Your task to perform on an android device: allow cookies in the chrome app Image 0: 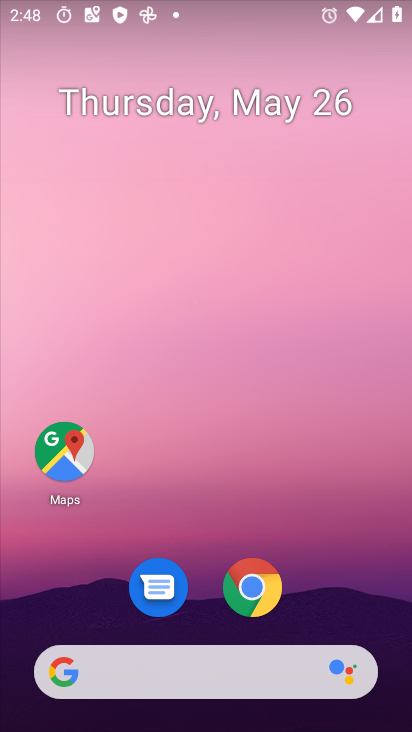
Step 0: drag from (384, 619) to (375, 158)
Your task to perform on an android device: allow cookies in the chrome app Image 1: 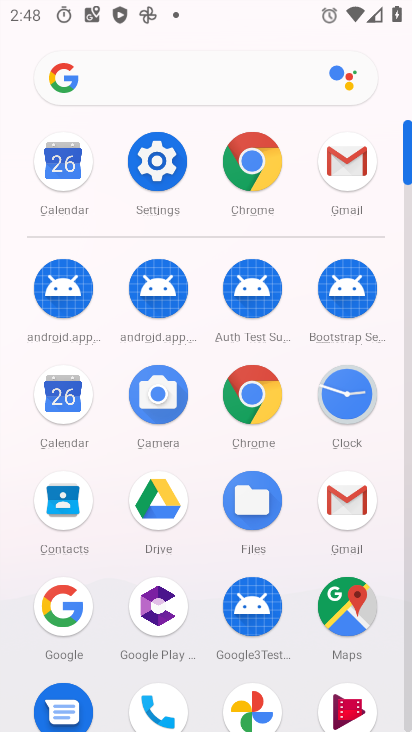
Step 1: click (255, 415)
Your task to perform on an android device: allow cookies in the chrome app Image 2: 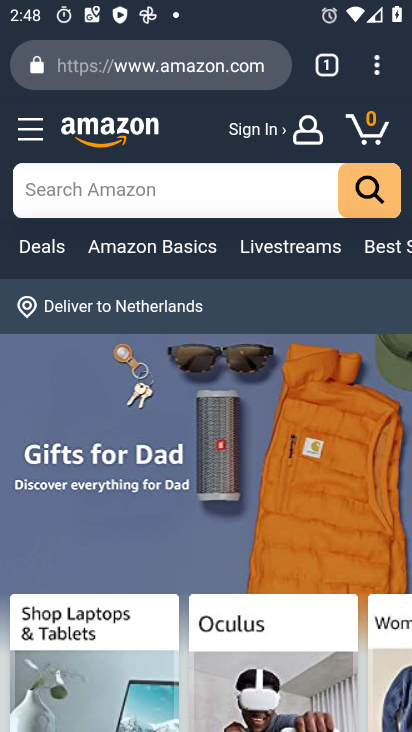
Step 2: click (379, 78)
Your task to perform on an android device: allow cookies in the chrome app Image 3: 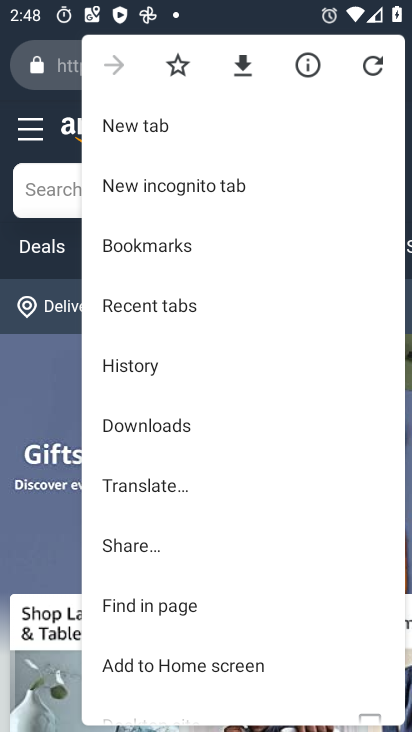
Step 3: drag from (333, 444) to (329, 333)
Your task to perform on an android device: allow cookies in the chrome app Image 4: 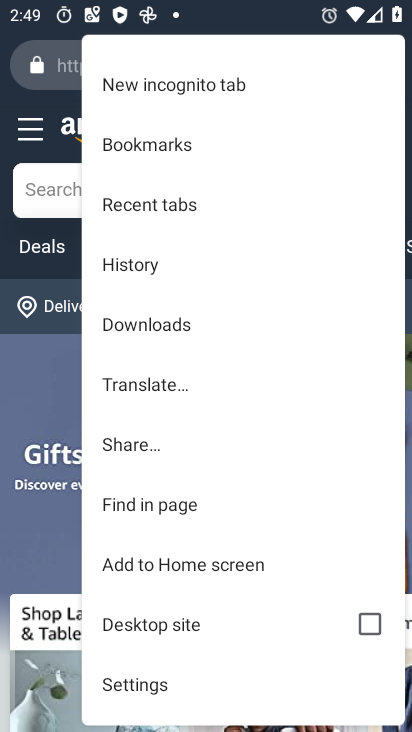
Step 4: drag from (301, 535) to (294, 410)
Your task to perform on an android device: allow cookies in the chrome app Image 5: 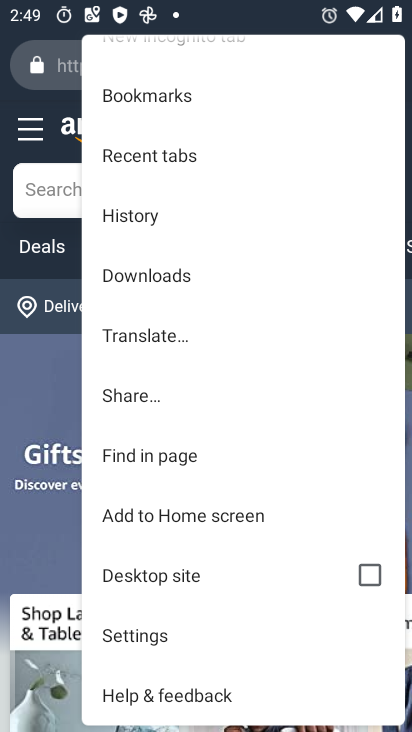
Step 5: click (164, 640)
Your task to perform on an android device: allow cookies in the chrome app Image 6: 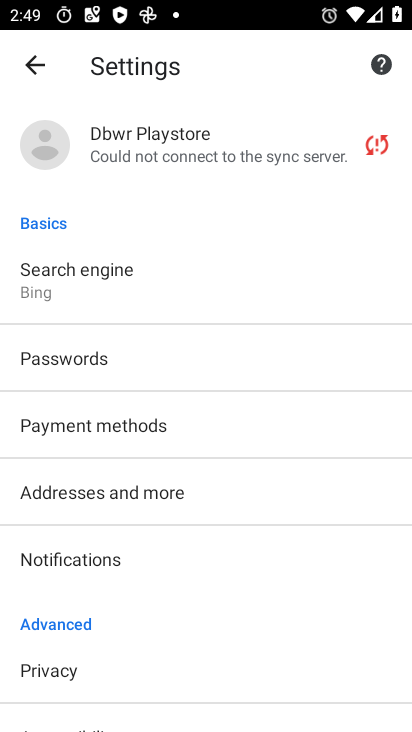
Step 6: drag from (307, 590) to (329, 487)
Your task to perform on an android device: allow cookies in the chrome app Image 7: 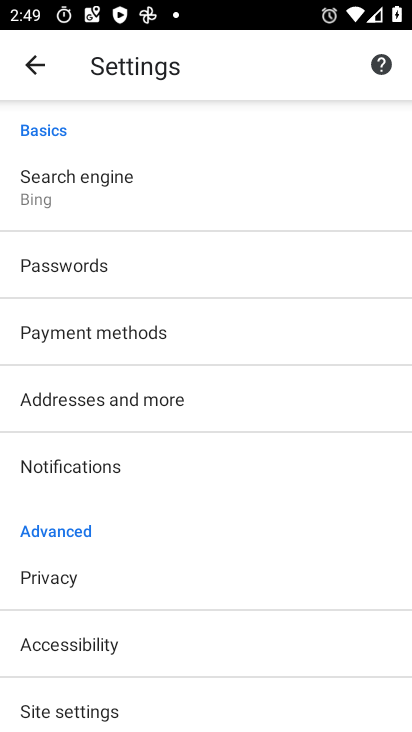
Step 7: drag from (349, 626) to (338, 468)
Your task to perform on an android device: allow cookies in the chrome app Image 8: 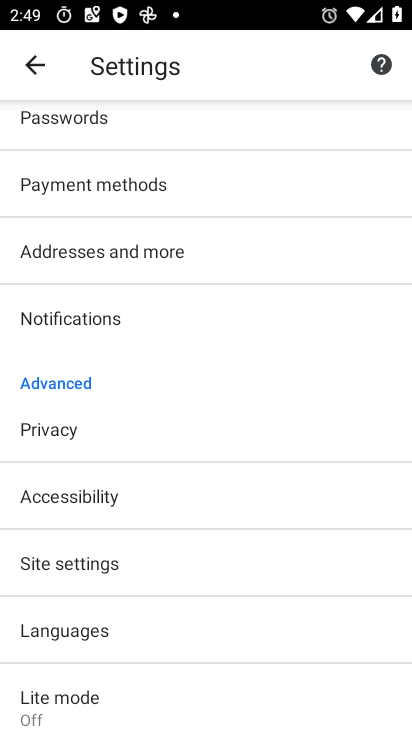
Step 8: drag from (313, 605) to (317, 539)
Your task to perform on an android device: allow cookies in the chrome app Image 9: 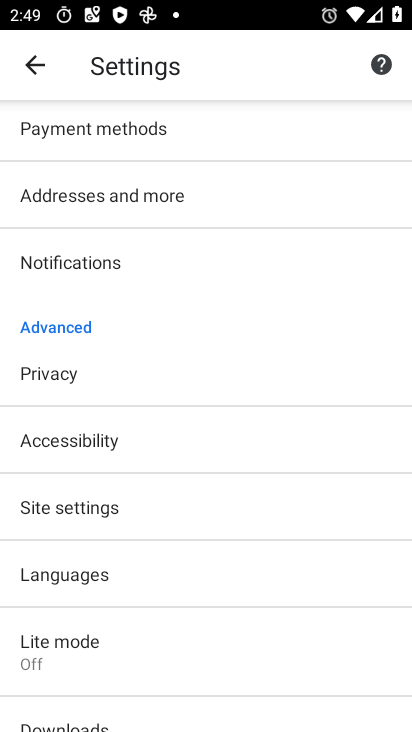
Step 9: drag from (322, 641) to (334, 503)
Your task to perform on an android device: allow cookies in the chrome app Image 10: 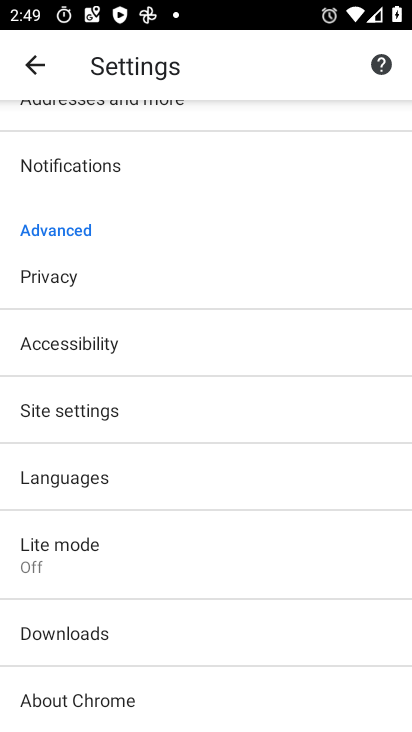
Step 10: drag from (343, 617) to (344, 508)
Your task to perform on an android device: allow cookies in the chrome app Image 11: 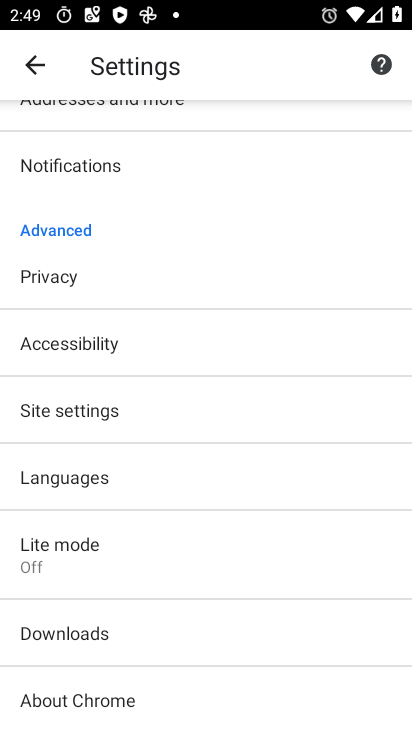
Step 11: drag from (324, 376) to (322, 474)
Your task to perform on an android device: allow cookies in the chrome app Image 12: 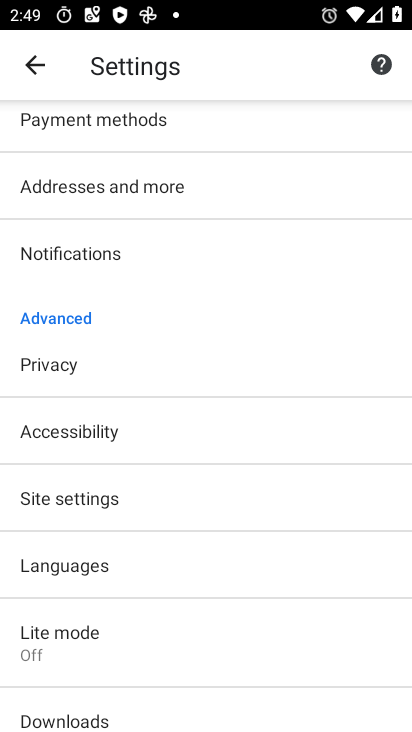
Step 12: click (295, 503)
Your task to perform on an android device: allow cookies in the chrome app Image 13: 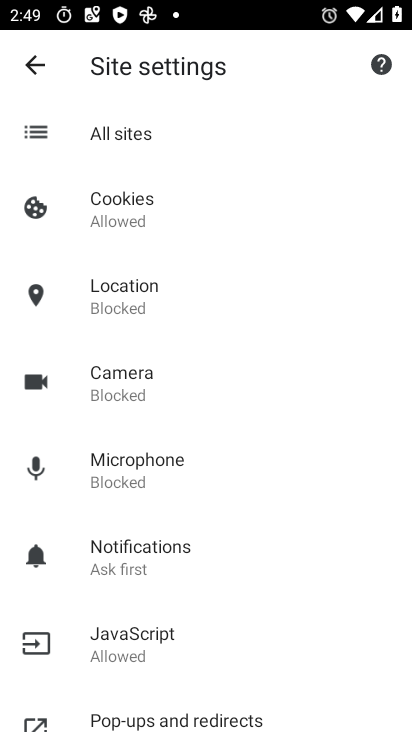
Step 13: drag from (303, 566) to (327, 477)
Your task to perform on an android device: allow cookies in the chrome app Image 14: 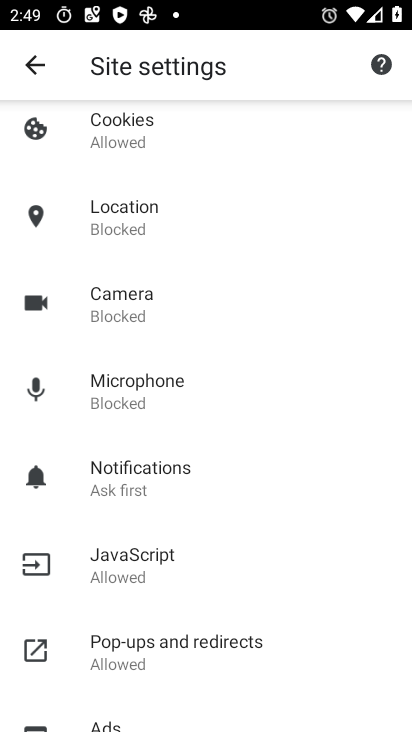
Step 14: drag from (323, 593) to (317, 490)
Your task to perform on an android device: allow cookies in the chrome app Image 15: 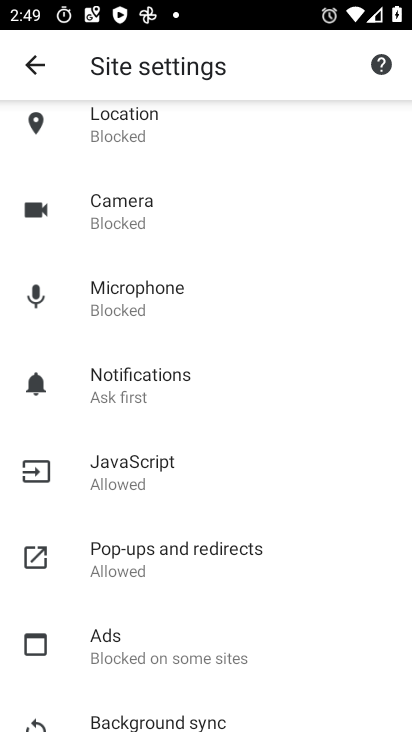
Step 15: drag from (328, 600) to (304, 493)
Your task to perform on an android device: allow cookies in the chrome app Image 16: 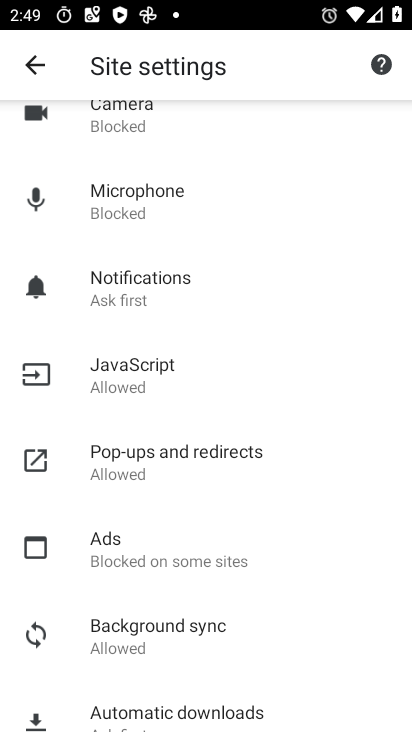
Step 16: drag from (302, 624) to (300, 527)
Your task to perform on an android device: allow cookies in the chrome app Image 17: 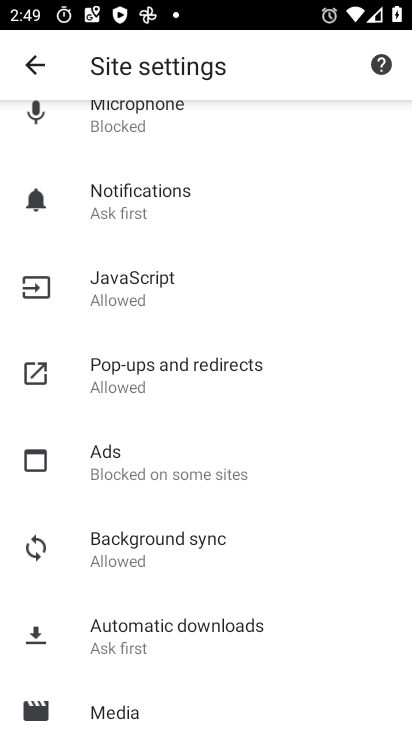
Step 17: drag from (311, 655) to (328, 564)
Your task to perform on an android device: allow cookies in the chrome app Image 18: 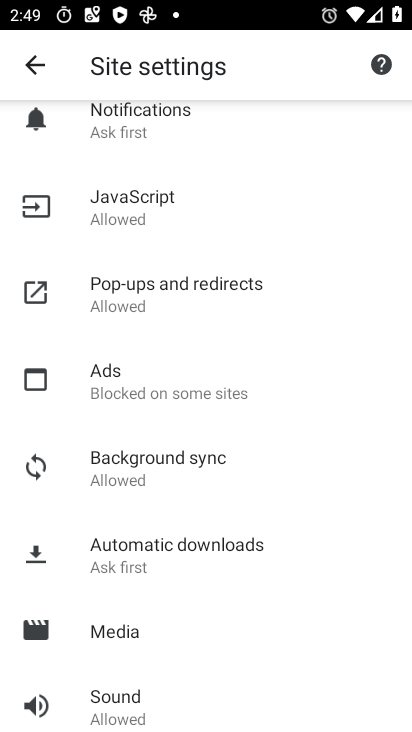
Step 18: drag from (336, 657) to (324, 547)
Your task to perform on an android device: allow cookies in the chrome app Image 19: 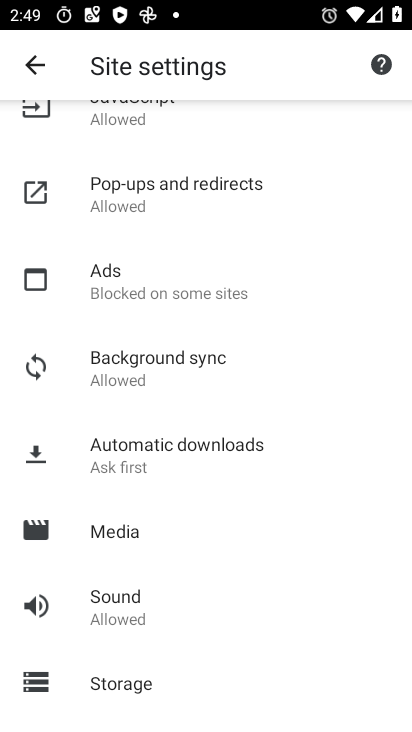
Step 19: drag from (320, 658) to (337, 565)
Your task to perform on an android device: allow cookies in the chrome app Image 20: 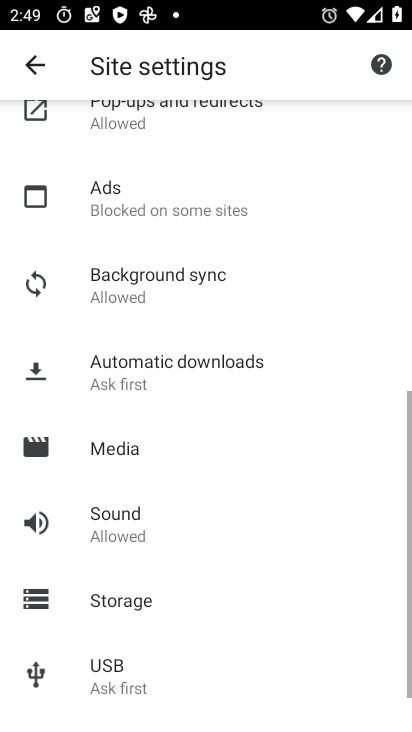
Step 20: drag from (346, 655) to (342, 501)
Your task to perform on an android device: allow cookies in the chrome app Image 21: 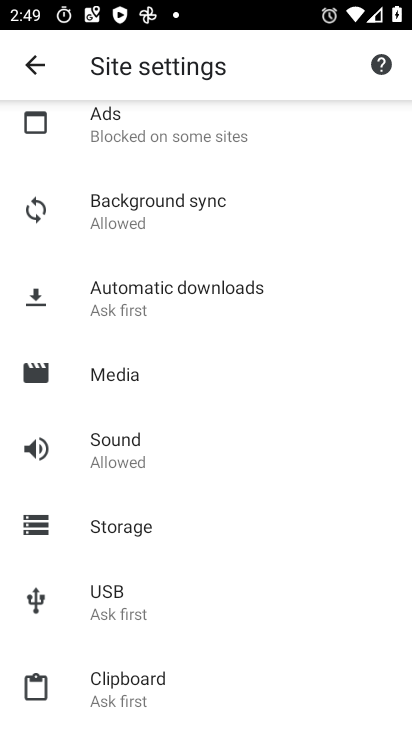
Step 21: drag from (322, 288) to (311, 413)
Your task to perform on an android device: allow cookies in the chrome app Image 22: 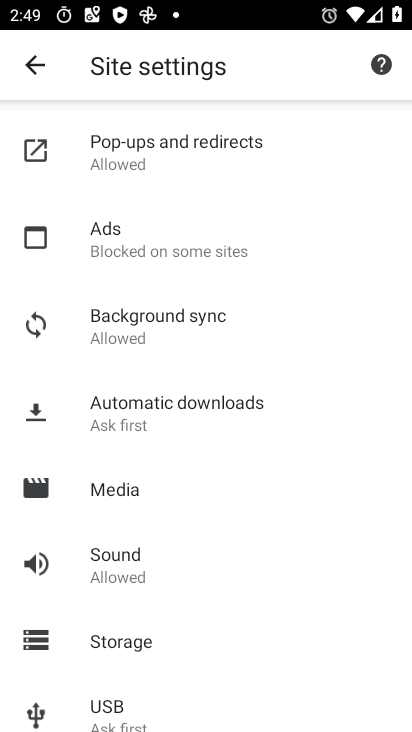
Step 22: drag from (325, 316) to (324, 414)
Your task to perform on an android device: allow cookies in the chrome app Image 23: 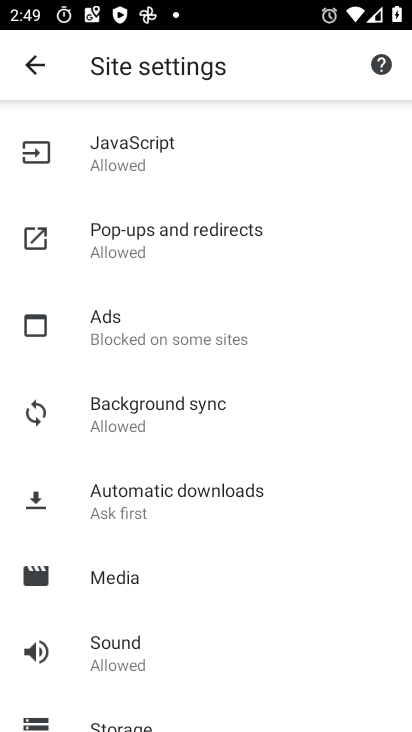
Step 23: drag from (331, 304) to (322, 414)
Your task to perform on an android device: allow cookies in the chrome app Image 24: 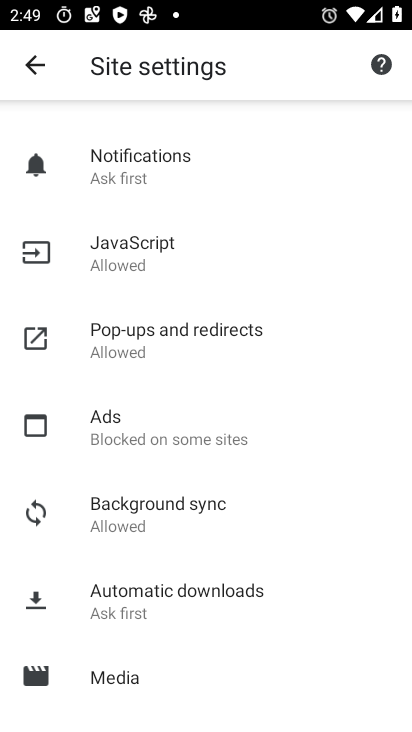
Step 24: drag from (306, 241) to (284, 441)
Your task to perform on an android device: allow cookies in the chrome app Image 25: 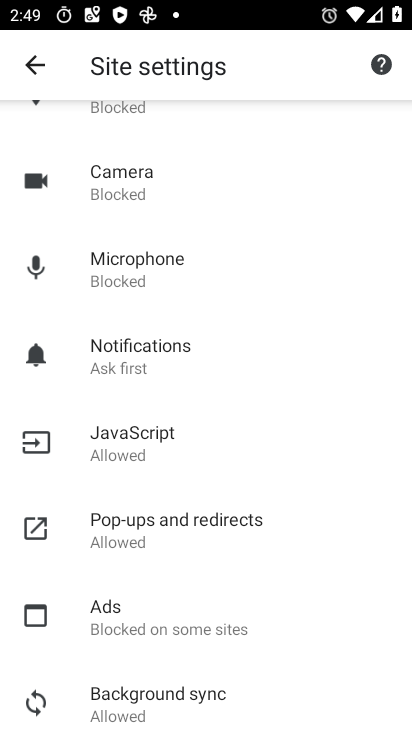
Step 25: drag from (308, 282) to (316, 414)
Your task to perform on an android device: allow cookies in the chrome app Image 26: 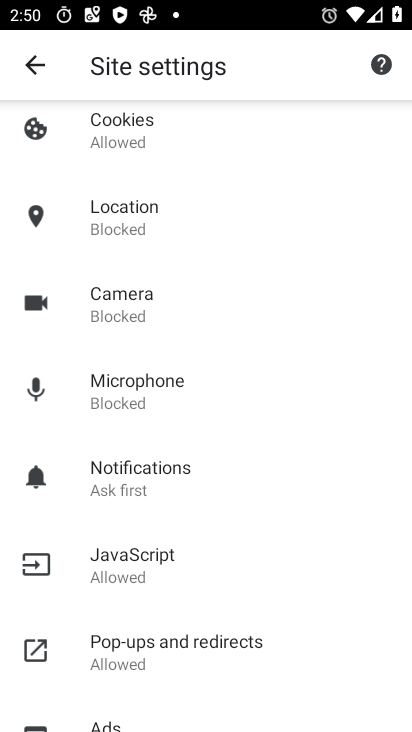
Step 26: drag from (303, 253) to (292, 424)
Your task to perform on an android device: allow cookies in the chrome app Image 27: 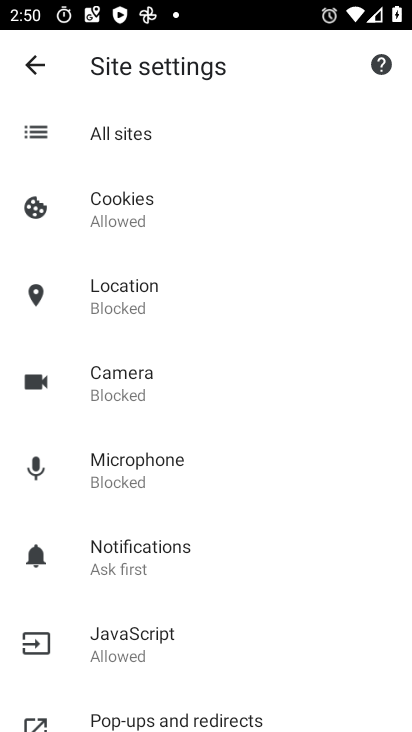
Step 27: click (153, 194)
Your task to perform on an android device: allow cookies in the chrome app Image 28: 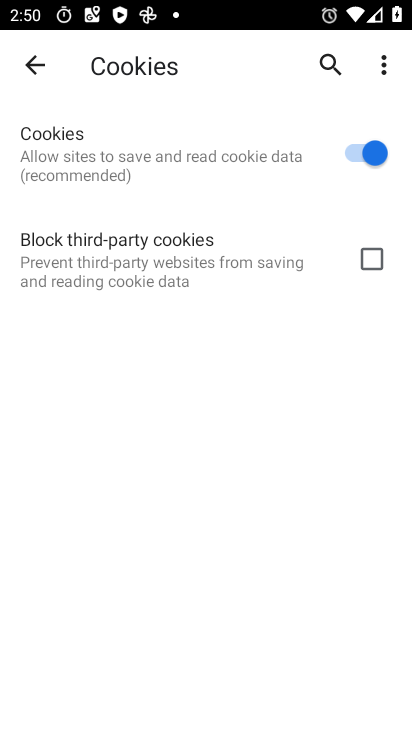
Step 28: task complete